Your task to perform on an android device: turn off location history Image 0: 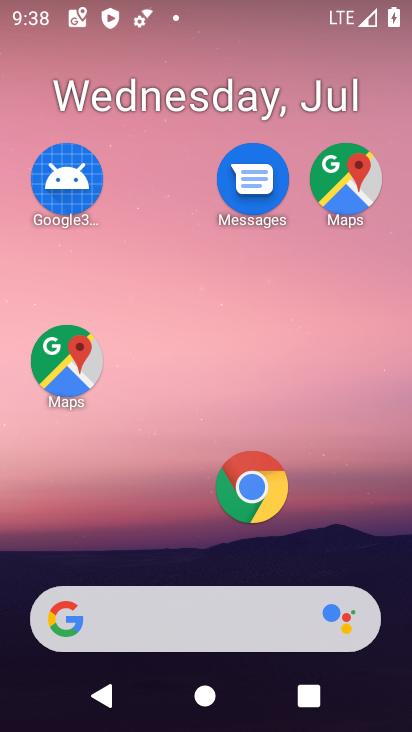
Step 0: drag from (189, 567) to (186, 5)
Your task to perform on an android device: turn off location history Image 1: 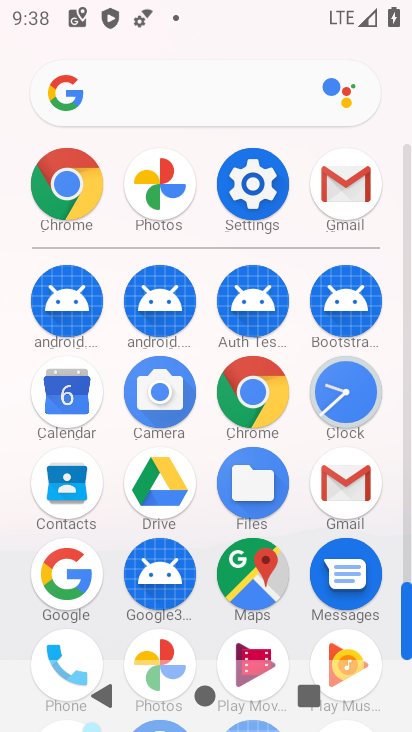
Step 1: click (254, 158)
Your task to perform on an android device: turn off location history Image 2: 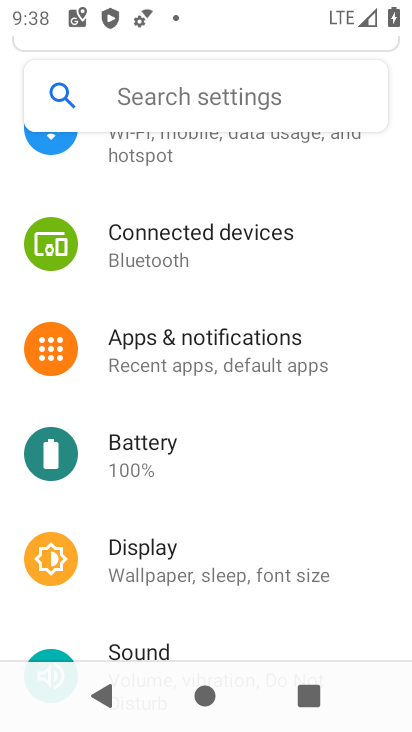
Step 2: drag from (239, 508) to (187, 149)
Your task to perform on an android device: turn off location history Image 3: 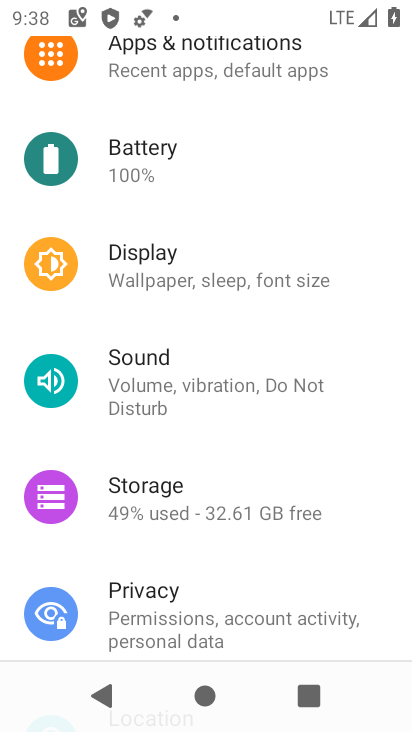
Step 3: drag from (242, 586) to (192, 63)
Your task to perform on an android device: turn off location history Image 4: 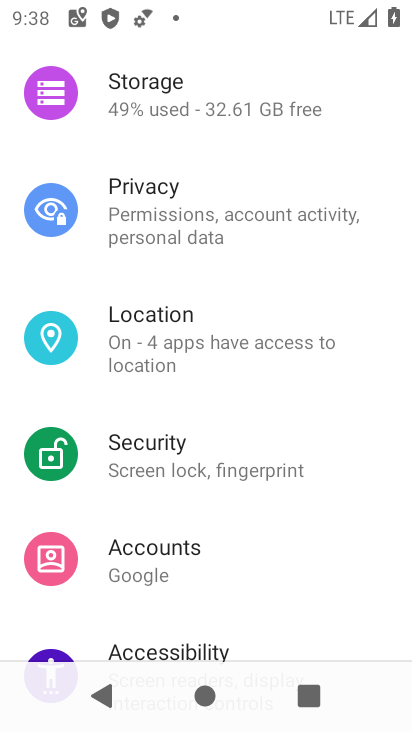
Step 4: click (142, 310)
Your task to perform on an android device: turn off location history Image 5: 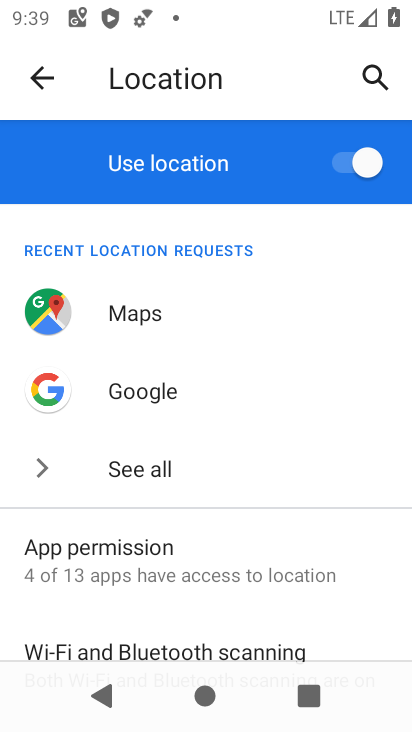
Step 5: drag from (336, 553) to (279, 142)
Your task to perform on an android device: turn off location history Image 6: 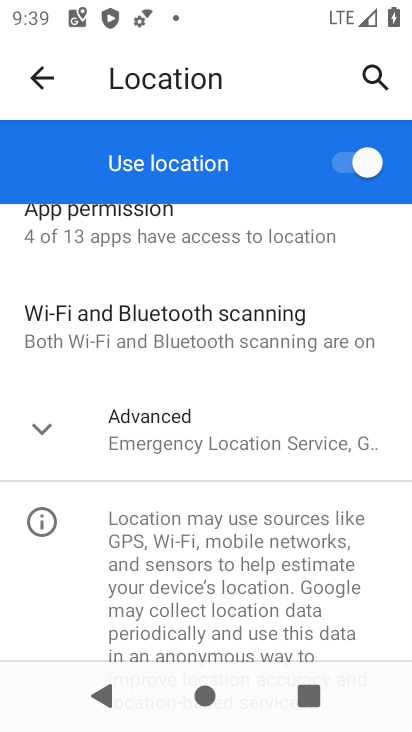
Step 6: click (96, 416)
Your task to perform on an android device: turn off location history Image 7: 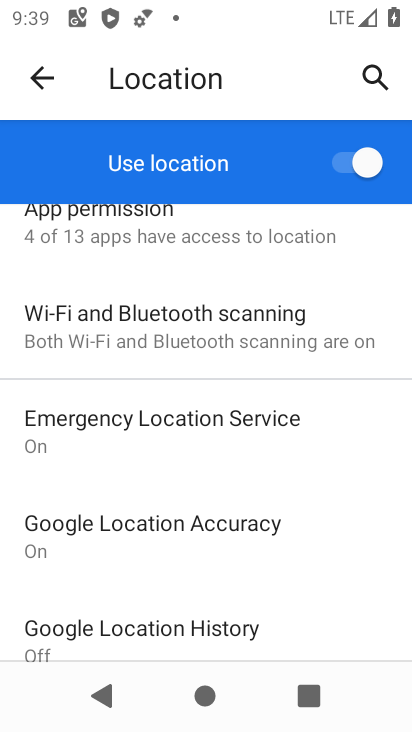
Step 7: click (78, 635)
Your task to perform on an android device: turn off location history Image 8: 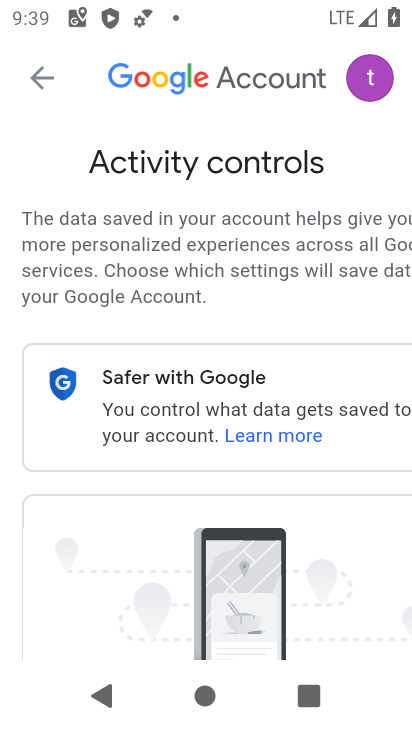
Step 8: task complete